Your task to perform on an android device: Show me productivity apps on the Play Store Image 0: 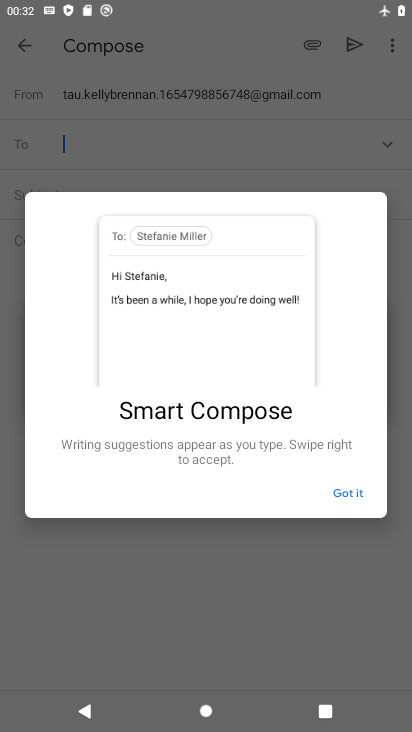
Step 0: press home button
Your task to perform on an android device: Show me productivity apps on the Play Store Image 1: 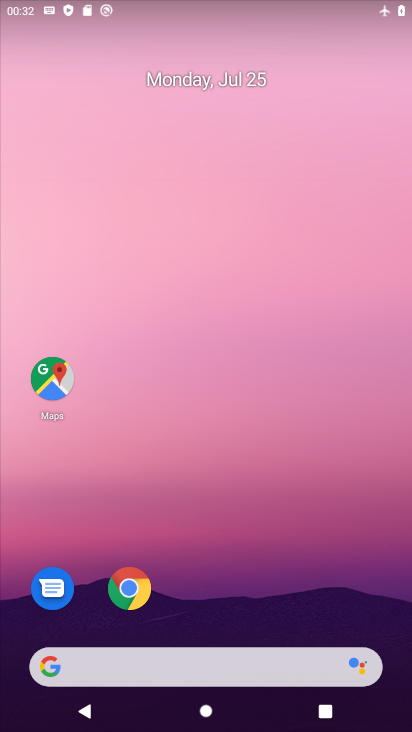
Step 1: drag from (200, 614) to (251, 9)
Your task to perform on an android device: Show me productivity apps on the Play Store Image 2: 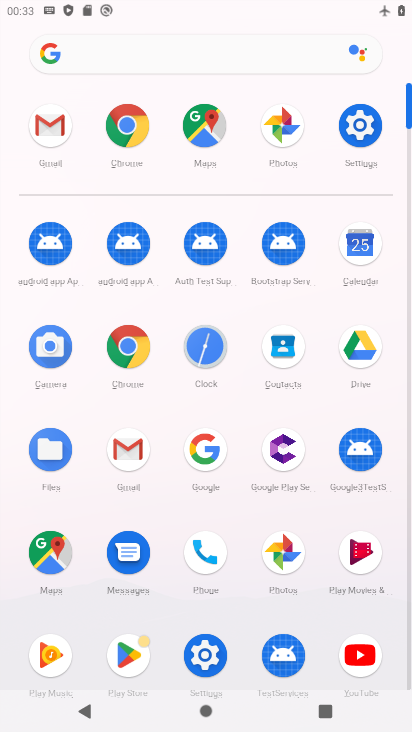
Step 2: click (128, 656)
Your task to perform on an android device: Show me productivity apps on the Play Store Image 3: 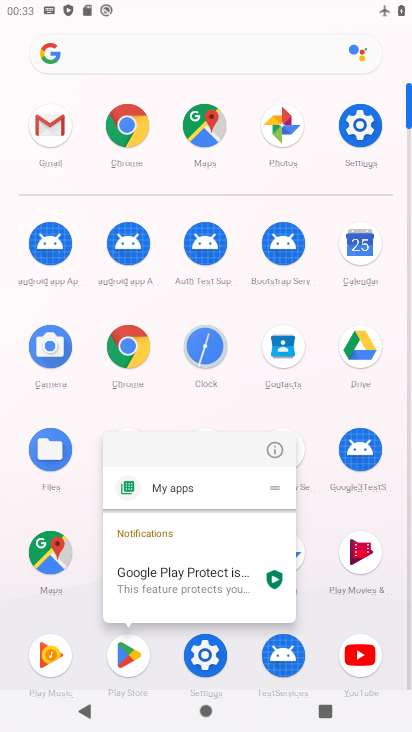
Step 3: click (133, 662)
Your task to perform on an android device: Show me productivity apps on the Play Store Image 4: 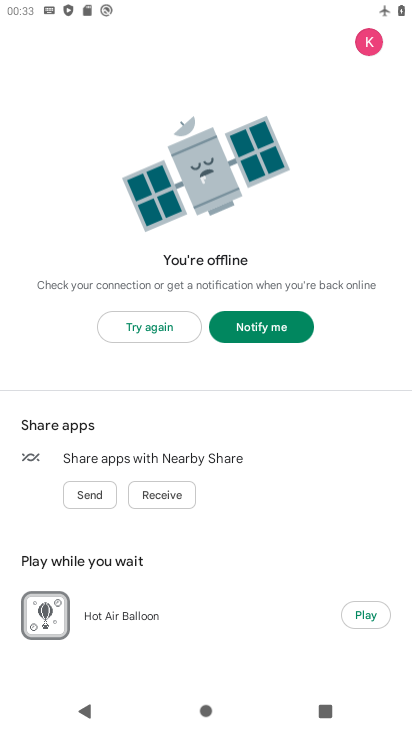
Step 4: click (167, 315)
Your task to perform on an android device: Show me productivity apps on the Play Store Image 5: 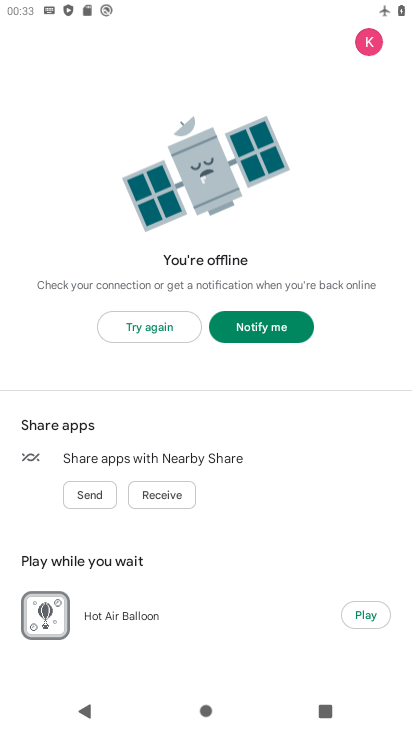
Step 5: click (189, 322)
Your task to perform on an android device: Show me productivity apps on the Play Store Image 6: 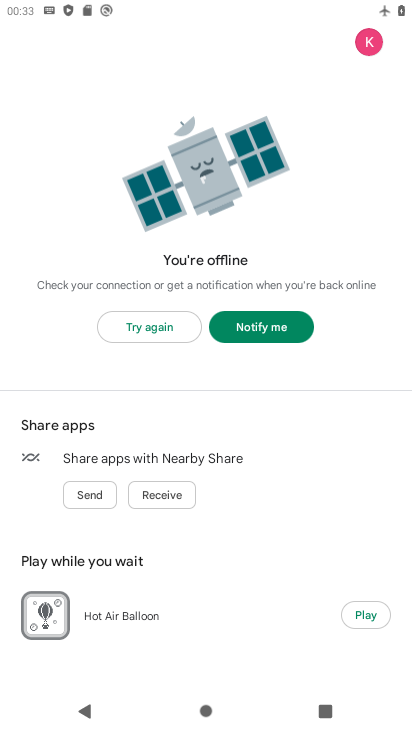
Step 6: task complete